Your task to perform on an android device: refresh tabs in the chrome app Image 0: 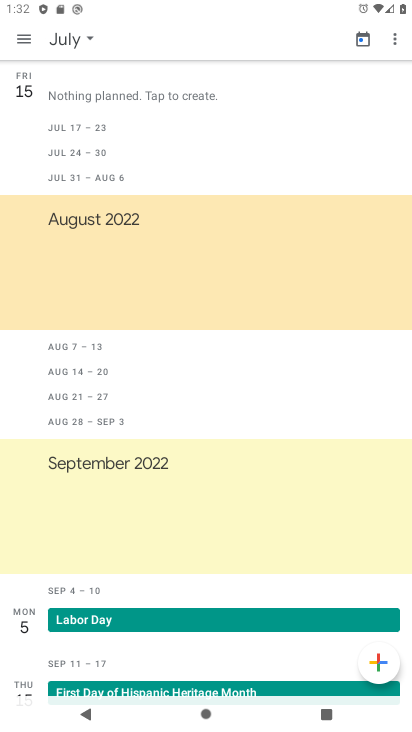
Step 0: press home button
Your task to perform on an android device: refresh tabs in the chrome app Image 1: 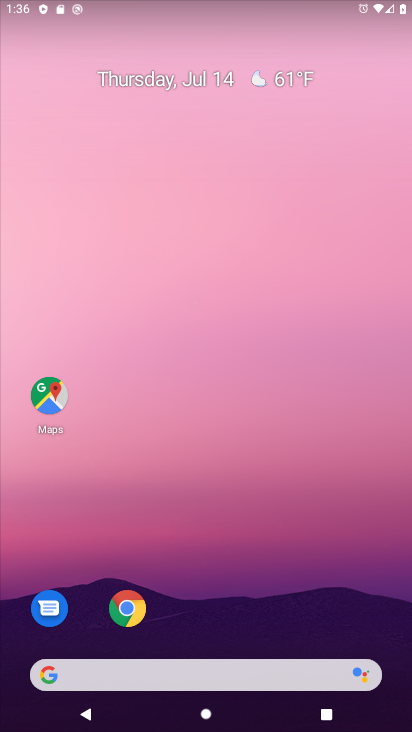
Step 1: click (126, 615)
Your task to perform on an android device: refresh tabs in the chrome app Image 2: 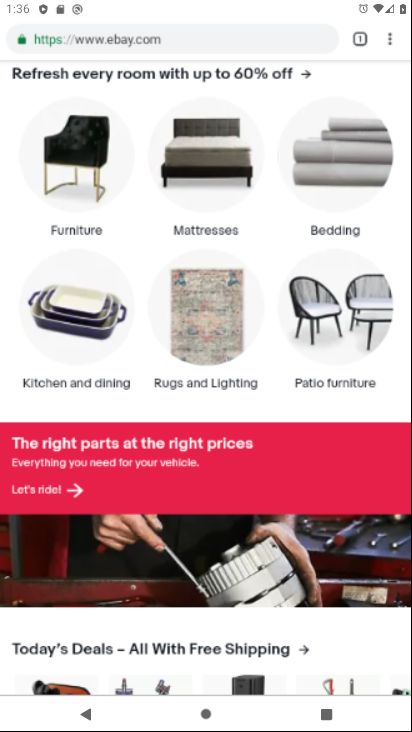
Step 2: click (389, 44)
Your task to perform on an android device: refresh tabs in the chrome app Image 3: 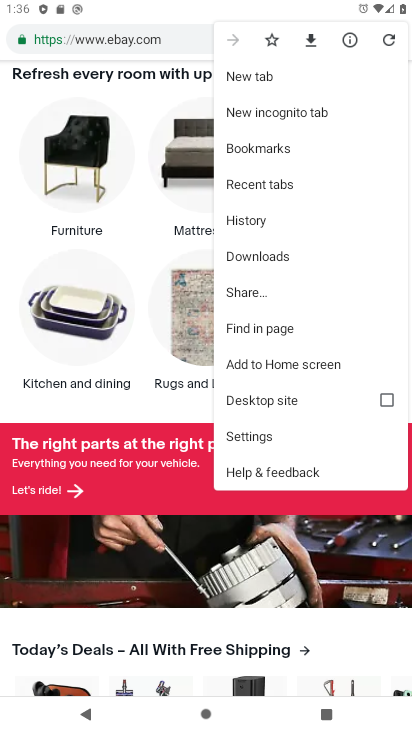
Step 3: click (381, 39)
Your task to perform on an android device: refresh tabs in the chrome app Image 4: 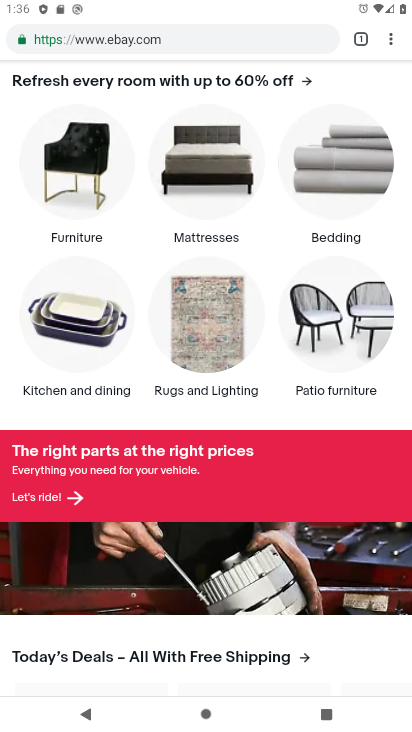
Step 4: task complete